Your task to perform on an android device: Open network settings Image 0: 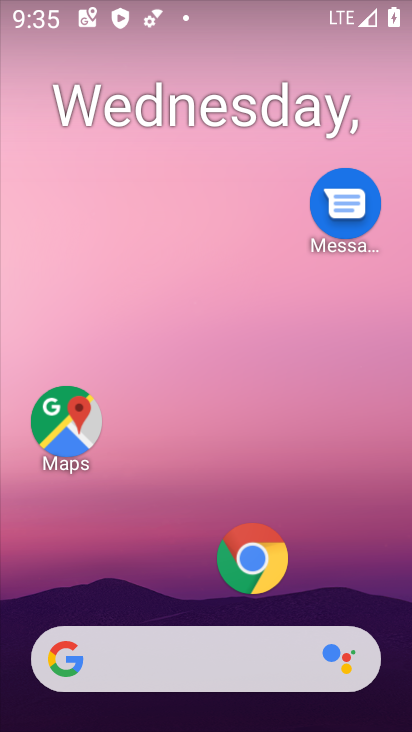
Step 0: drag from (193, 675) to (128, 156)
Your task to perform on an android device: Open network settings Image 1: 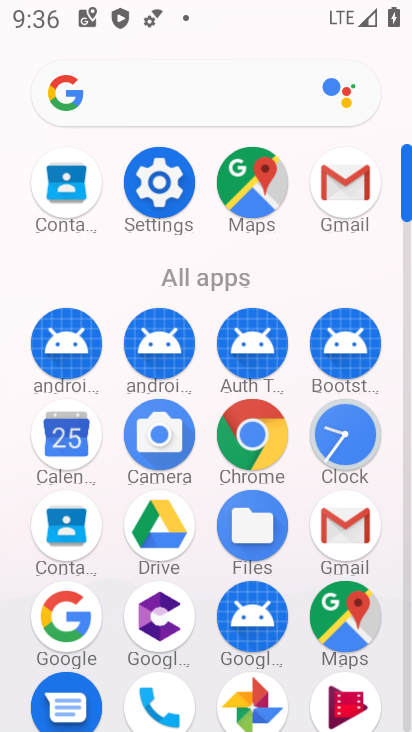
Step 1: click (150, 198)
Your task to perform on an android device: Open network settings Image 2: 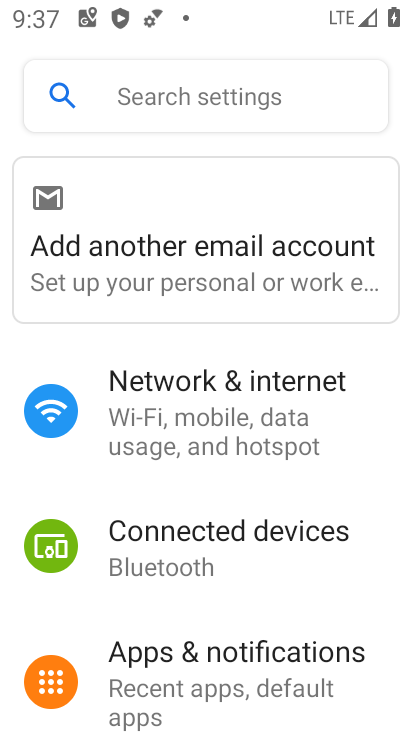
Step 2: click (204, 412)
Your task to perform on an android device: Open network settings Image 3: 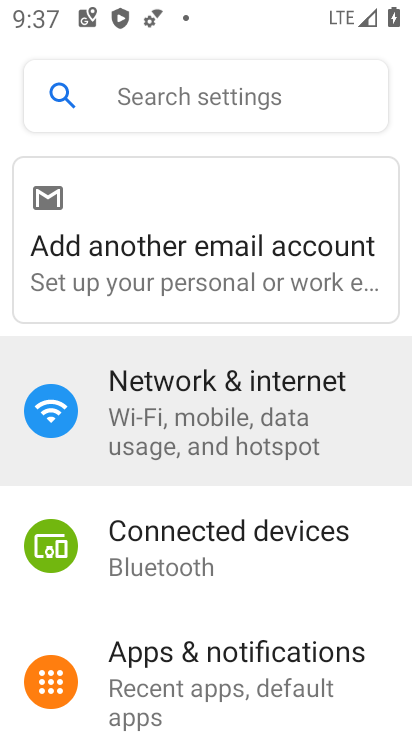
Step 3: click (205, 400)
Your task to perform on an android device: Open network settings Image 4: 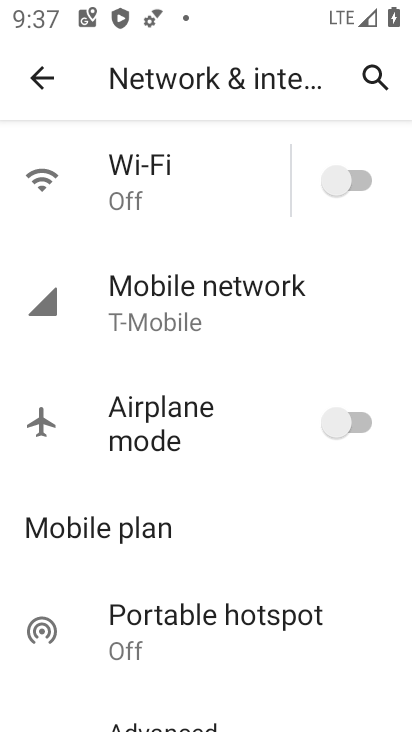
Step 4: task complete